Your task to perform on an android device: turn off improve location accuracy Image 0: 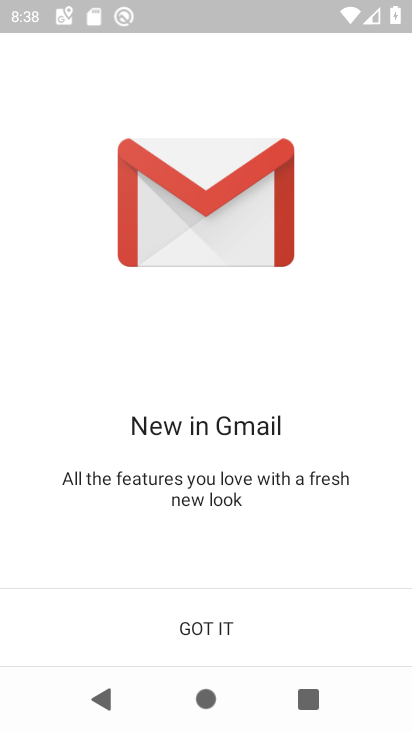
Step 0: press home button
Your task to perform on an android device: turn off improve location accuracy Image 1: 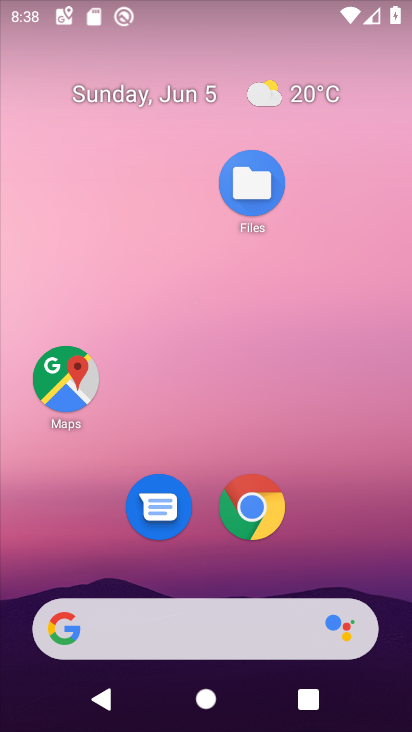
Step 1: drag from (213, 576) to (247, 26)
Your task to perform on an android device: turn off improve location accuracy Image 2: 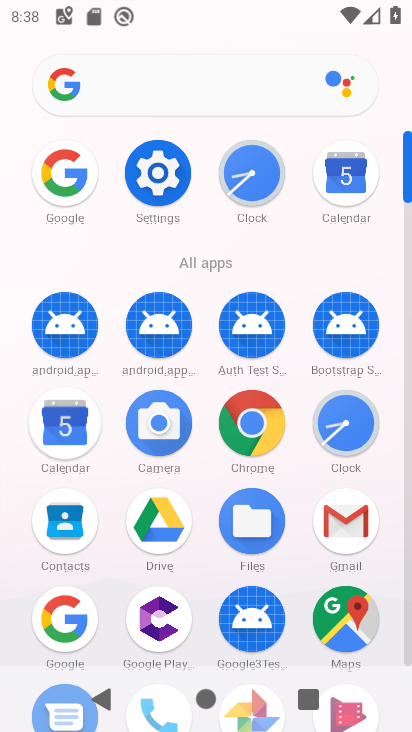
Step 2: click (159, 184)
Your task to perform on an android device: turn off improve location accuracy Image 3: 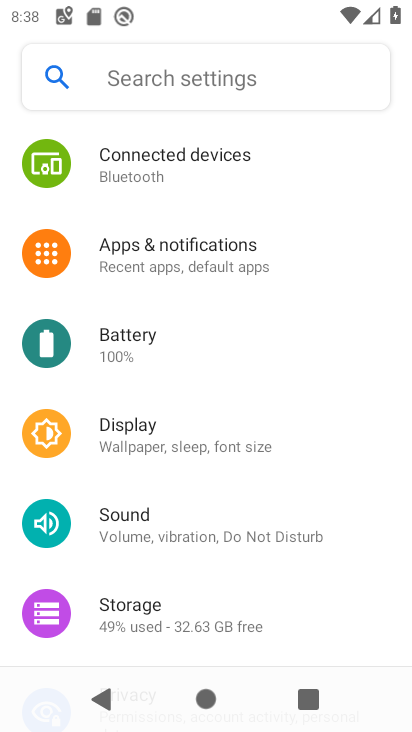
Step 3: drag from (231, 520) to (169, 102)
Your task to perform on an android device: turn off improve location accuracy Image 4: 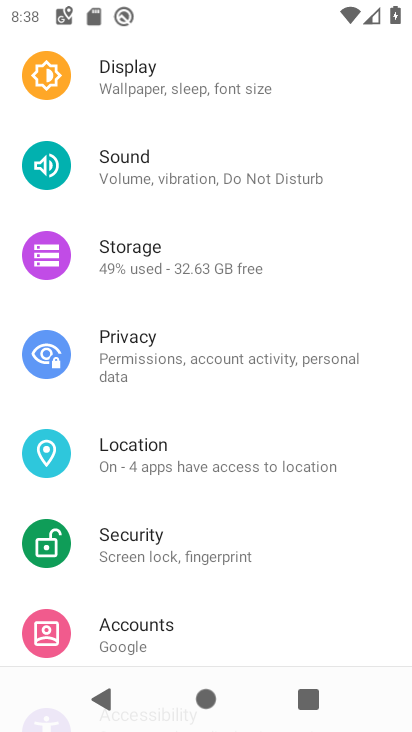
Step 4: click (171, 448)
Your task to perform on an android device: turn off improve location accuracy Image 5: 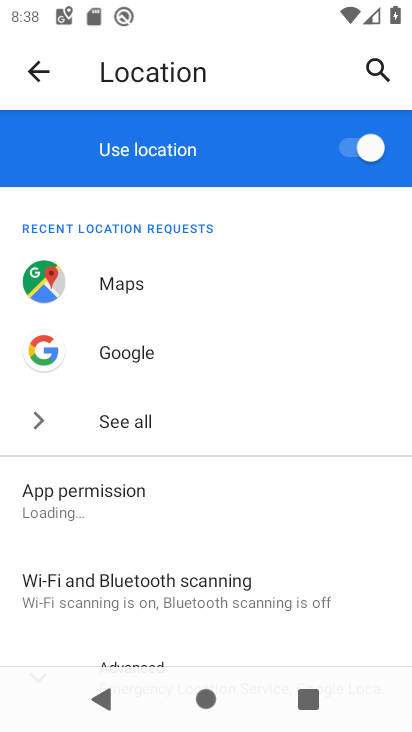
Step 5: drag from (171, 448) to (106, 82)
Your task to perform on an android device: turn off improve location accuracy Image 6: 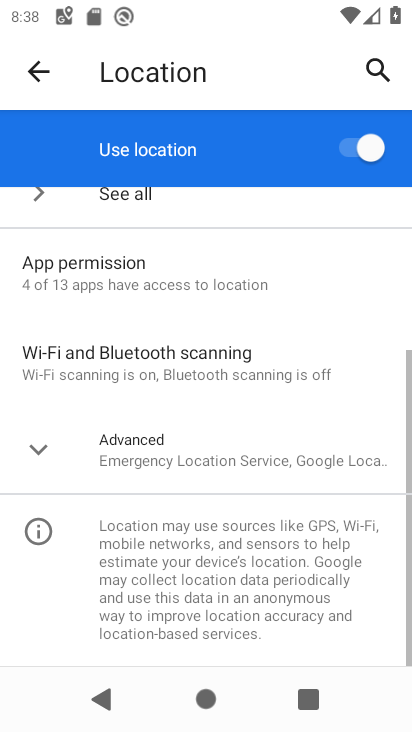
Step 6: click (144, 443)
Your task to perform on an android device: turn off improve location accuracy Image 7: 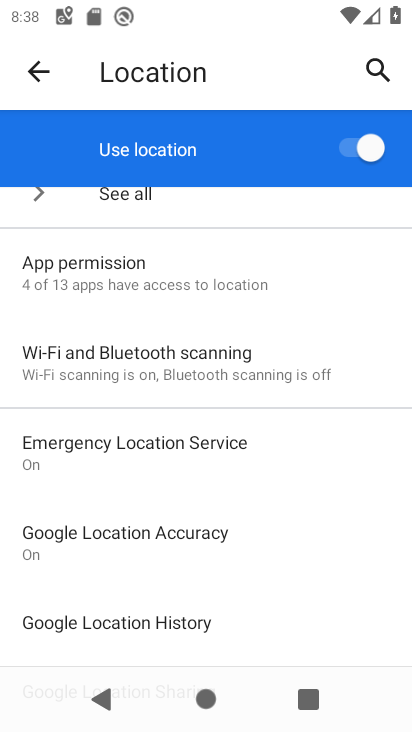
Step 7: click (154, 525)
Your task to perform on an android device: turn off improve location accuracy Image 8: 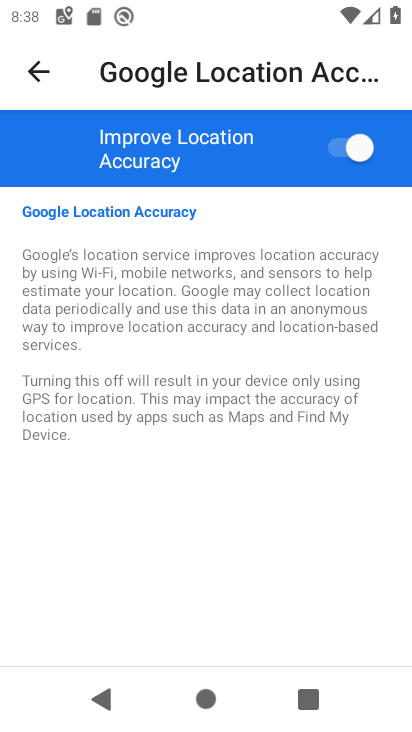
Step 8: click (353, 149)
Your task to perform on an android device: turn off improve location accuracy Image 9: 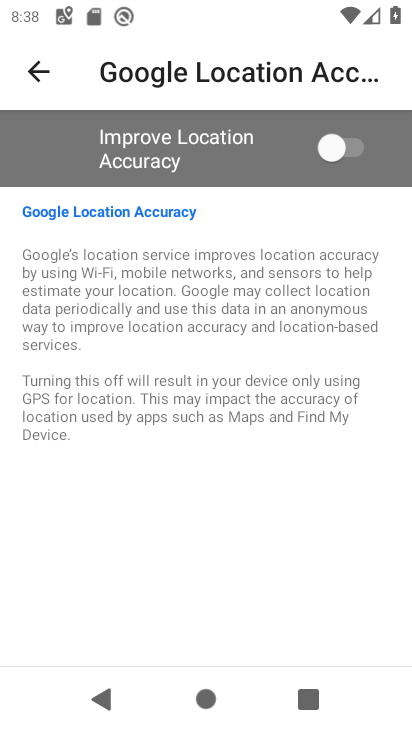
Step 9: task complete